Your task to perform on an android device: turn off picture-in-picture Image 0: 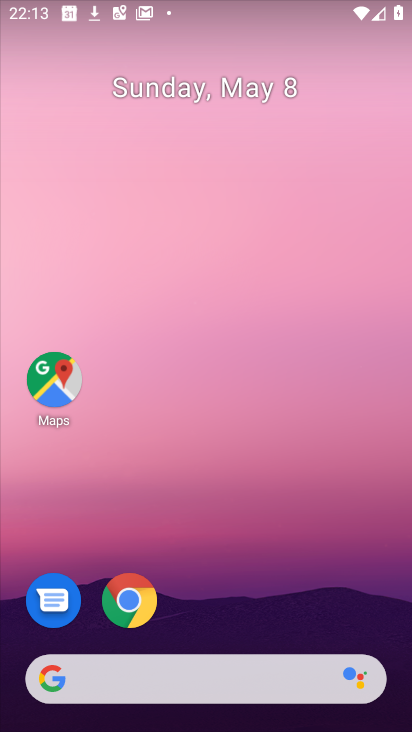
Step 0: drag from (305, 711) to (321, 195)
Your task to perform on an android device: turn off picture-in-picture Image 1: 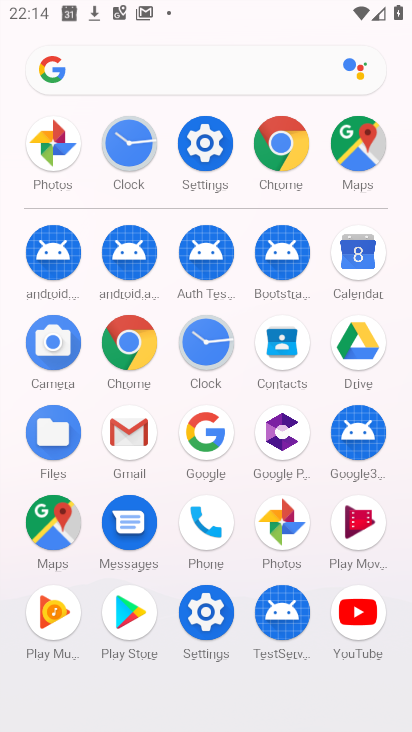
Step 1: click (212, 163)
Your task to perform on an android device: turn off picture-in-picture Image 2: 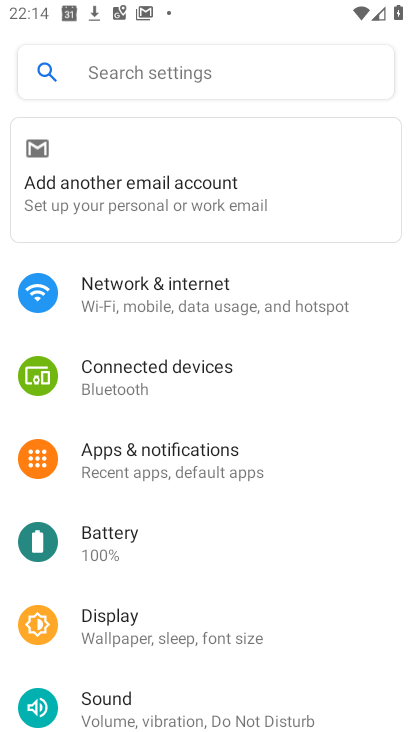
Step 2: click (230, 69)
Your task to perform on an android device: turn off picture-in-picture Image 3: 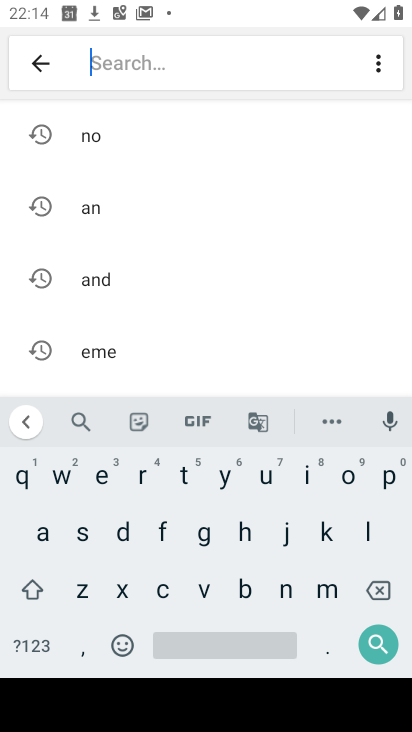
Step 3: click (378, 485)
Your task to perform on an android device: turn off picture-in-picture Image 4: 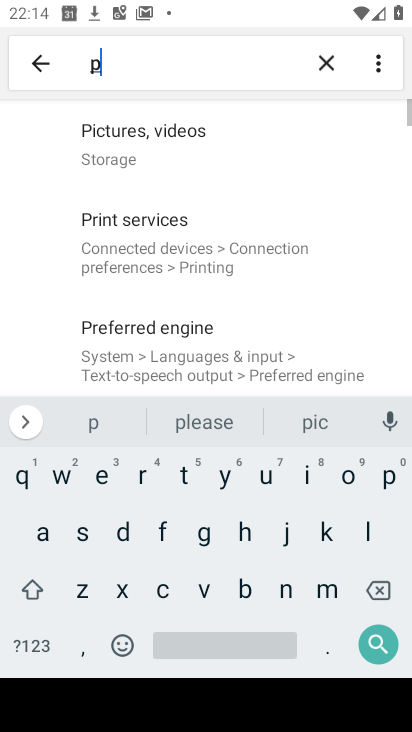
Step 4: click (304, 480)
Your task to perform on an android device: turn off picture-in-picture Image 5: 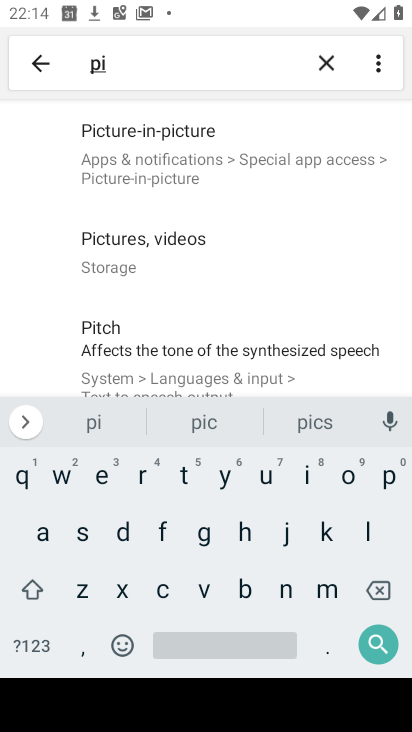
Step 5: click (136, 156)
Your task to perform on an android device: turn off picture-in-picture Image 6: 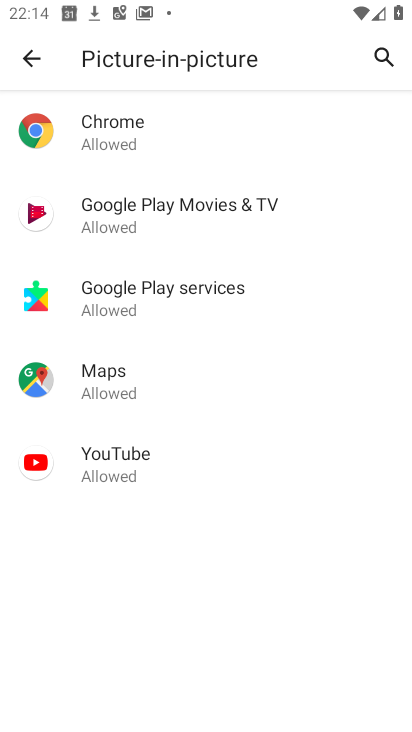
Step 6: task complete